Your task to perform on an android device: Search for pizza restaurants on Maps Image 0: 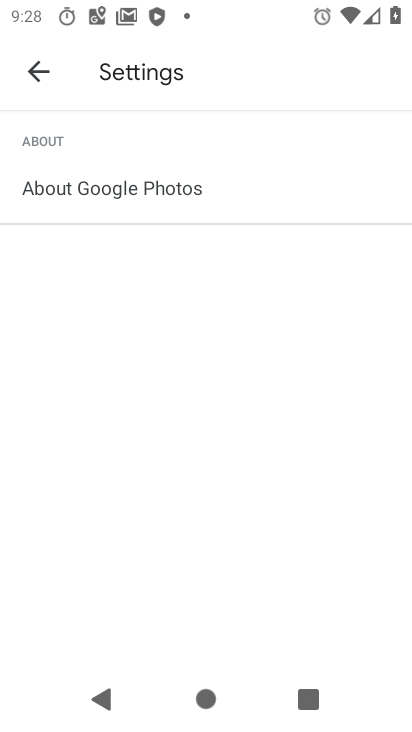
Step 0: press home button
Your task to perform on an android device: Search for pizza restaurants on Maps Image 1: 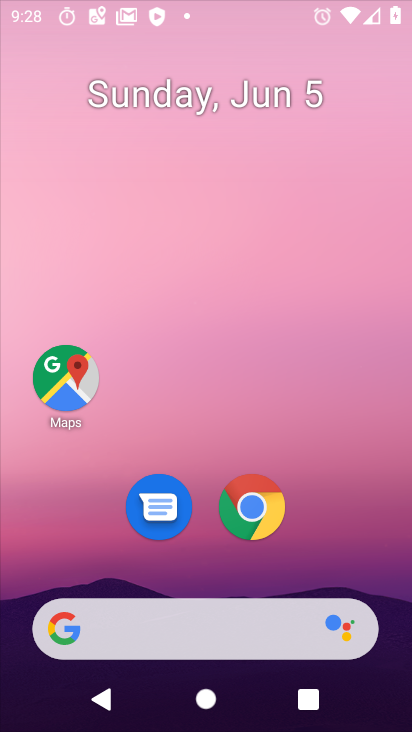
Step 1: drag from (214, 611) to (180, 165)
Your task to perform on an android device: Search for pizza restaurants on Maps Image 2: 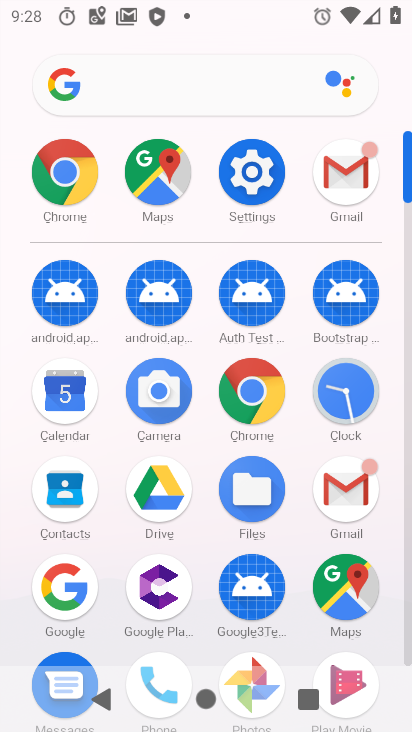
Step 2: click (144, 179)
Your task to perform on an android device: Search for pizza restaurants on Maps Image 3: 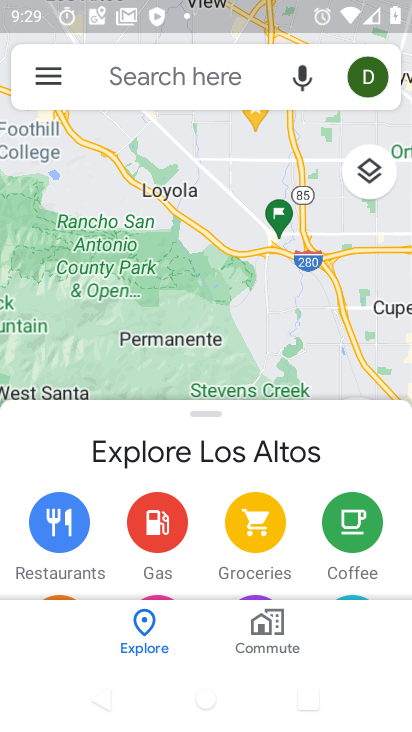
Step 3: click (162, 80)
Your task to perform on an android device: Search for pizza restaurants on Maps Image 4: 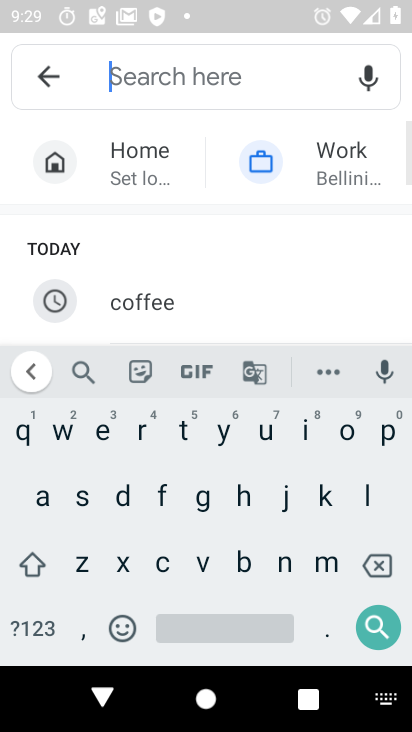
Step 4: click (384, 435)
Your task to perform on an android device: Search for pizza restaurants on Maps Image 5: 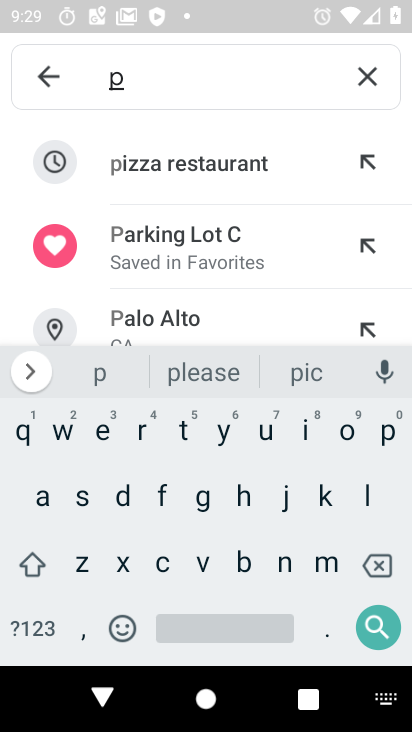
Step 5: click (202, 175)
Your task to perform on an android device: Search for pizza restaurants on Maps Image 6: 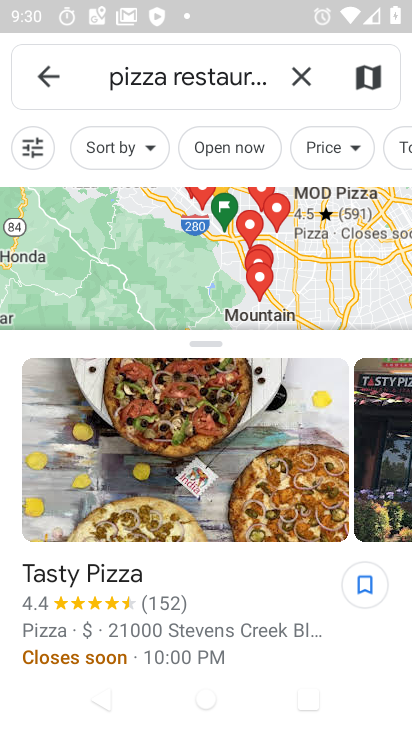
Step 6: task complete